Your task to perform on an android device: Open wifi settings Image 0: 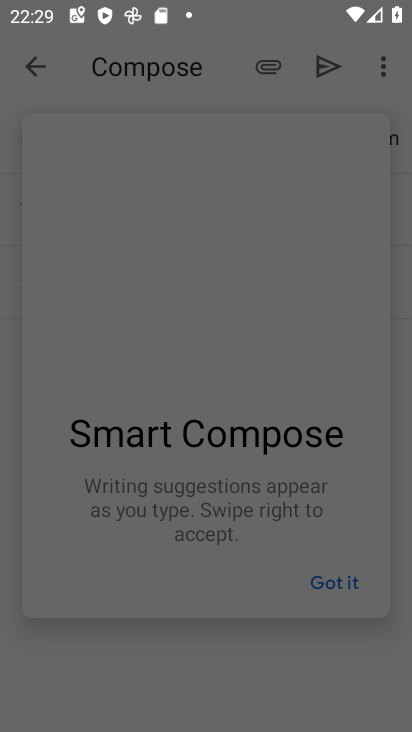
Step 0: drag from (231, 592) to (303, 122)
Your task to perform on an android device: Open wifi settings Image 1: 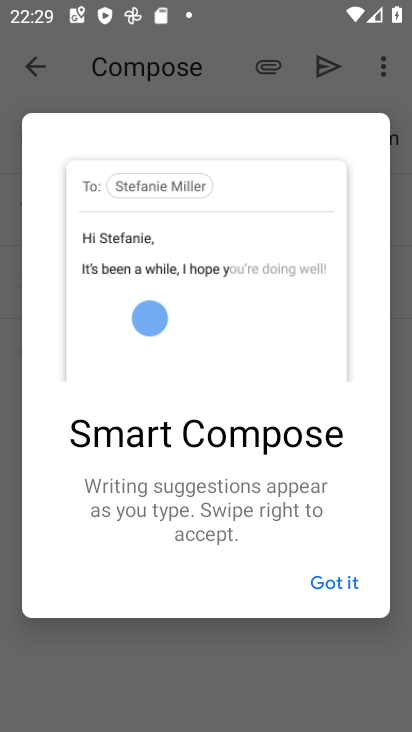
Step 1: press home button
Your task to perform on an android device: Open wifi settings Image 2: 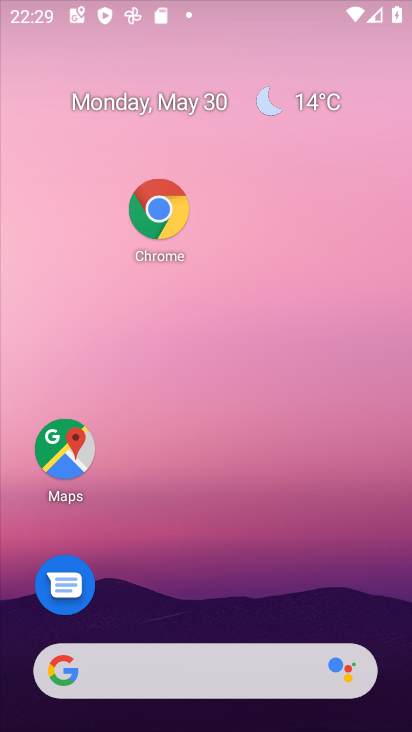
Step 2: drag from (24, 608) to (177, 182)
Your task to perform on an android device: Open wifi settings Image 3: 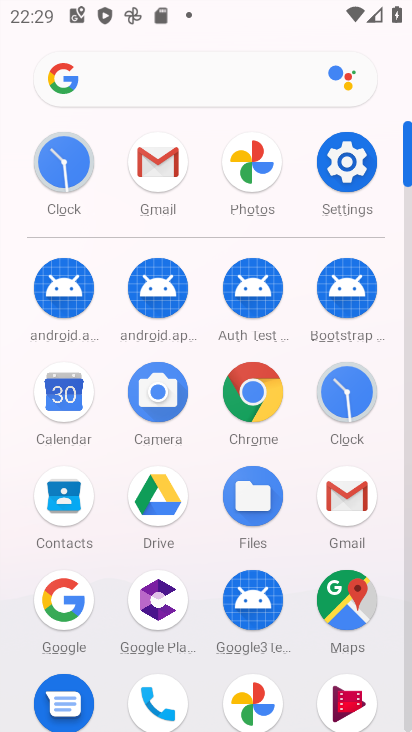
Step 3: click (341, 150)
Your task to perform on an android device: Open wifi settings Image 4: 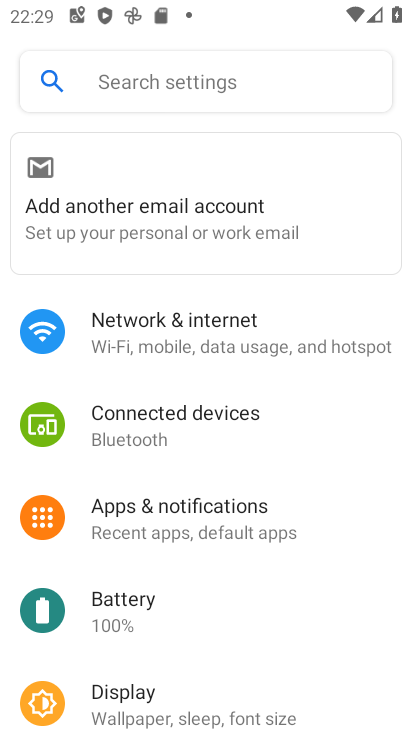
Step 4: click (197, 327)
Your task to perform on an android device: Open wifi settings Image 5: 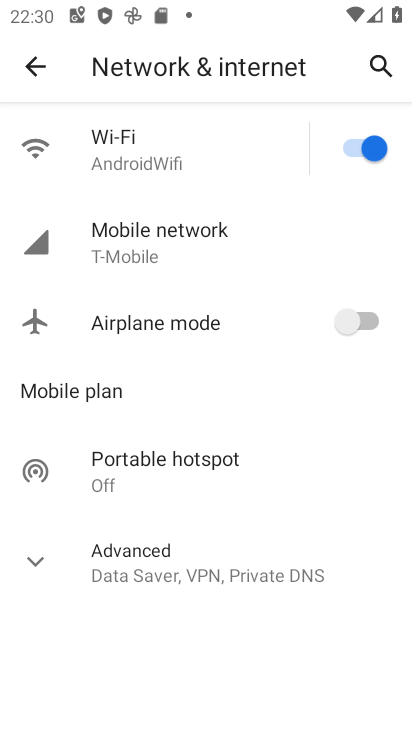
Step 5: click (229, 136)
Your task to perform on an android device: Open wifi settings Image 6: 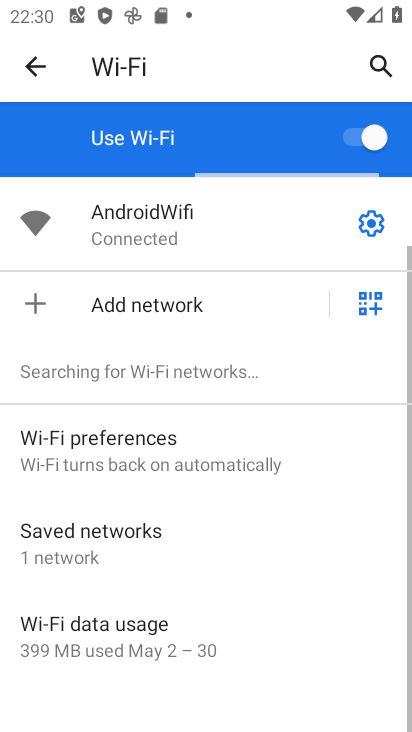
Step 6: click (393, 221)
Your task to perform on an android device: Open wifi settings Image 7: 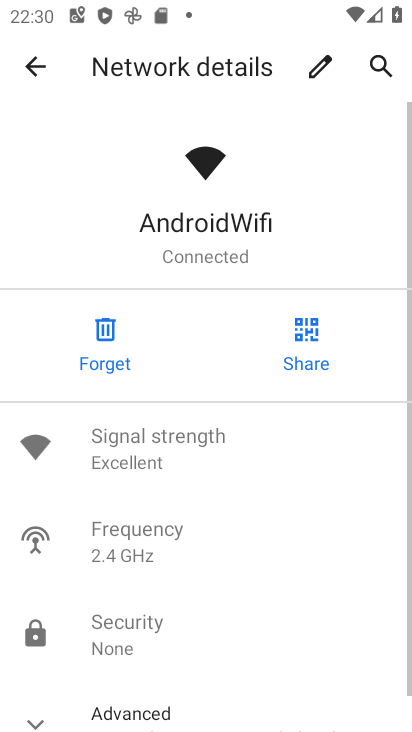
Step 7: task complete